Your task to perform on an android device: turn pop-ups off in chrome Image 0: 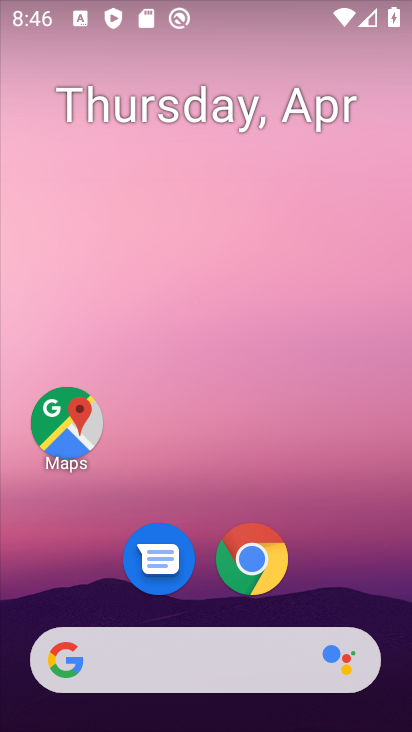
Step 0: click (250, 577)
Your task to perform on an android device: turn pop-ups off in chrome Image 1: 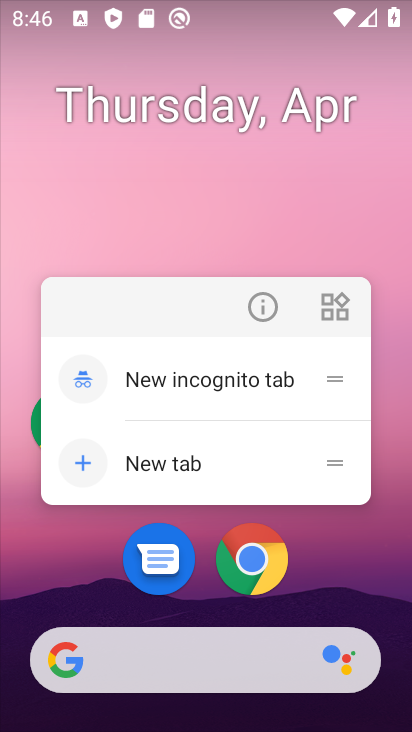
Step 1: click (250, 577)
Your task to perform on an android device: turn pop-ups off in chrome Image 2: 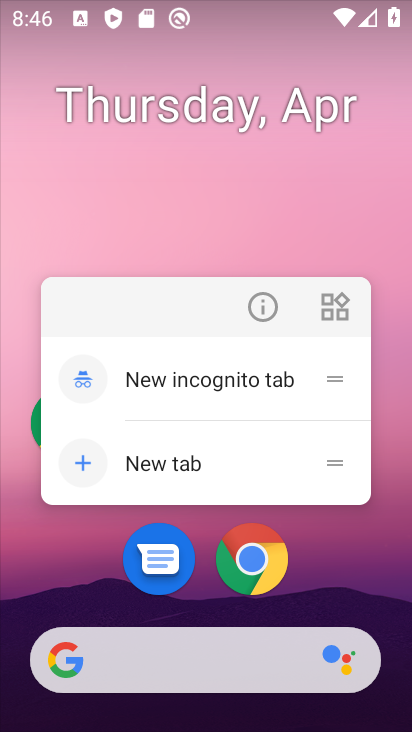
Step 2: click (250, 577)
Your task to perform on an android device: turn pop-ups off in chrome Image 3: 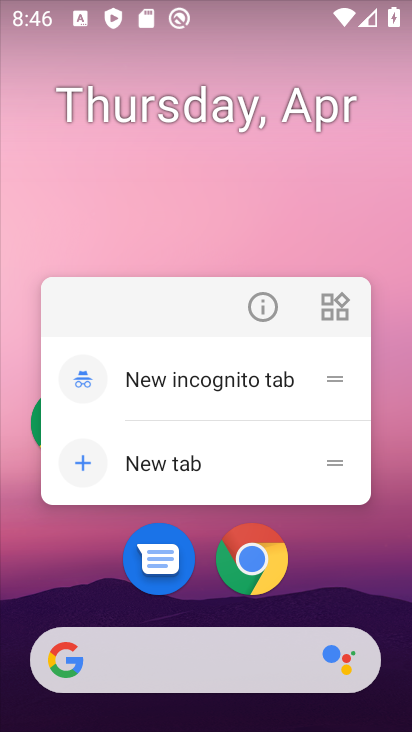
Step 3: click (250, 577)
Your task to perform on an android device: turn pop-ups off in chrome Image 4: 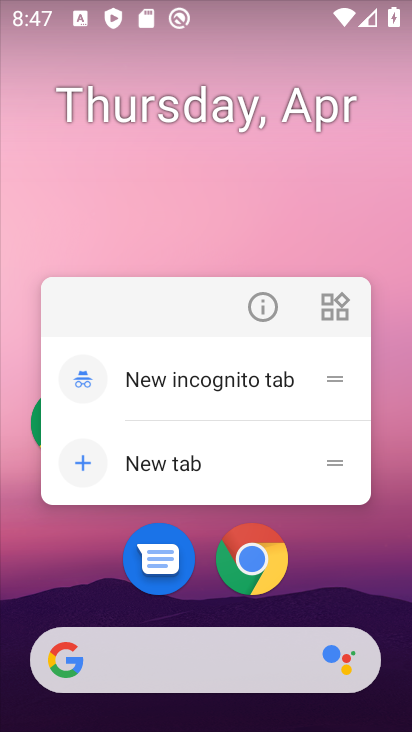
Step 4: click (270, 557)
Your task to perform on an android device: turn pop-ups off in chrome Image 5: 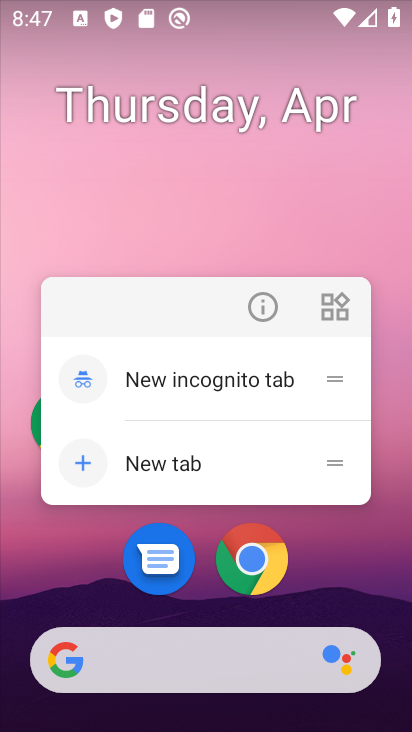
Step 5: click (270, 557)
Your task to perform on an android device: turn pop-ups off in chrome Image 6: 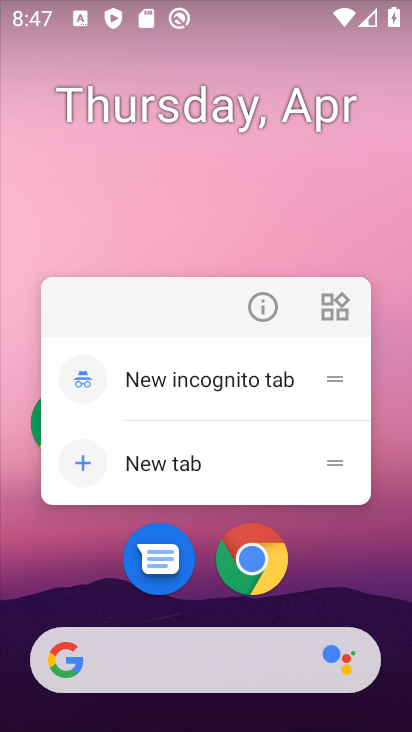
Step 6: click (267, 560)
Your task to perform on an android device: turn pop-ups off in chrome Image 7: 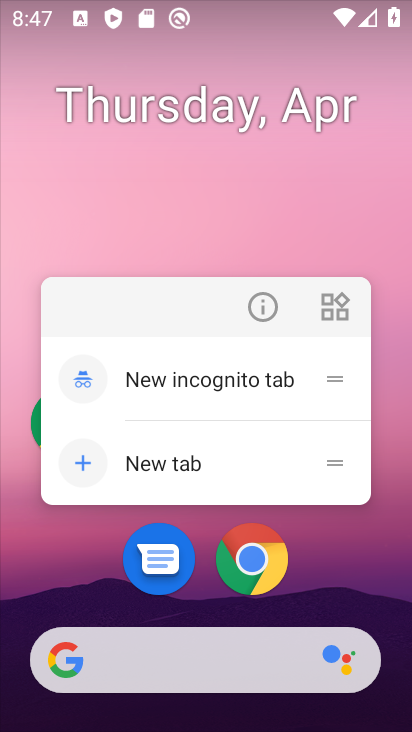
Step 7: click (238, 548)
Your task to perform on an android device: turn pop-ups off in chrome Image 8: 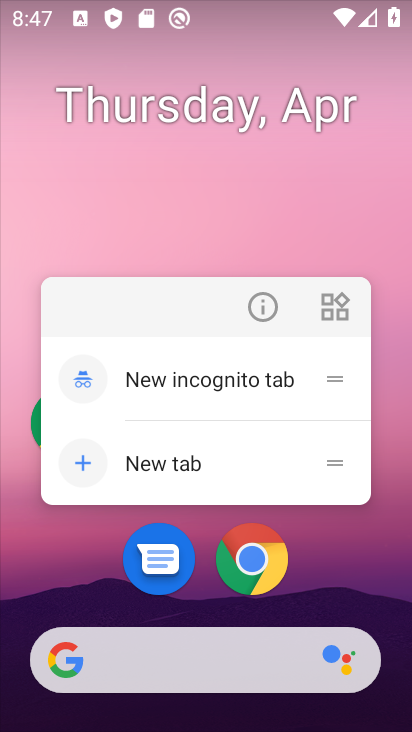
Step 8: click (238, 548)
Your task to perform on an android device: turn pop-ups off in chrome Image 9: 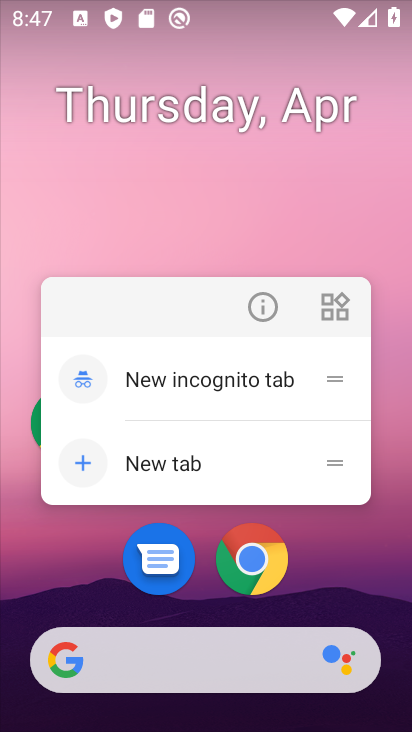
Step 9: click (239, 550)
Your task to perform on an android device: turn pop-ups off in chrome Image 10: 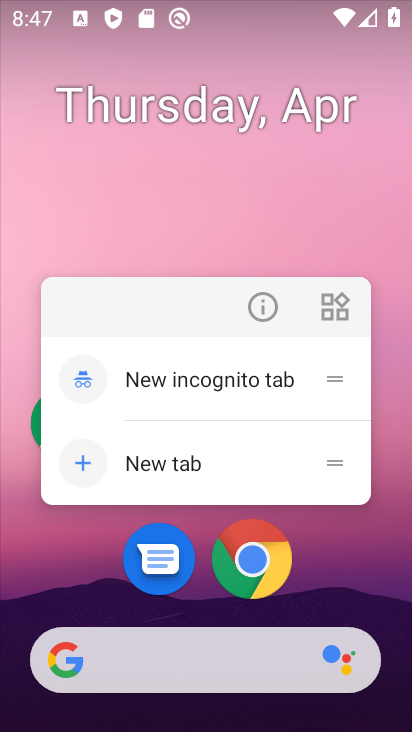
Step 10: click (239, 550)
Your task to perform on an android device: turn pop-ups off in chrome Image 11: 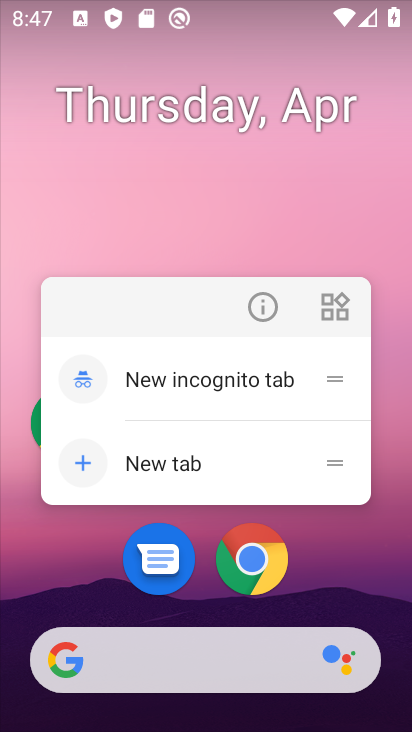
Step 11: click (299, 175)
Your task to perform on an android device: turn pop-ups off in chrome Image 12: 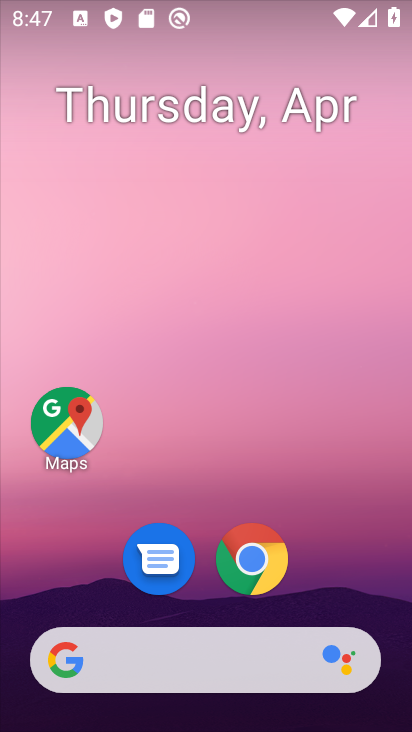
Step 12: click (254, 553)
Your task to perform on an android device: turn pop-ups off in chrome Image 13: 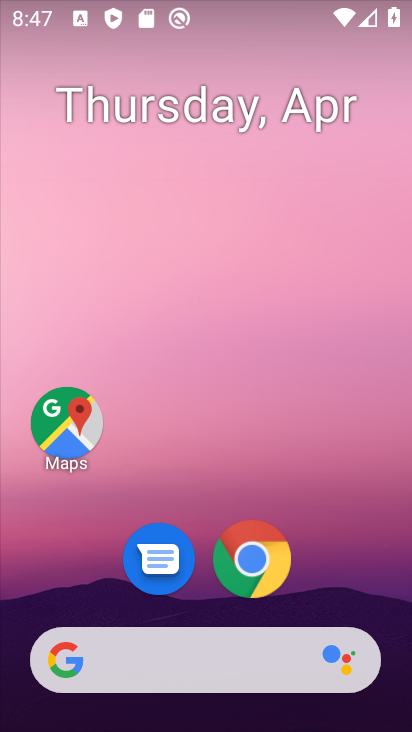
Step 13: click (254, 553)
Your task to perform on an android device: turn pop-ups off in chrome Image 14: 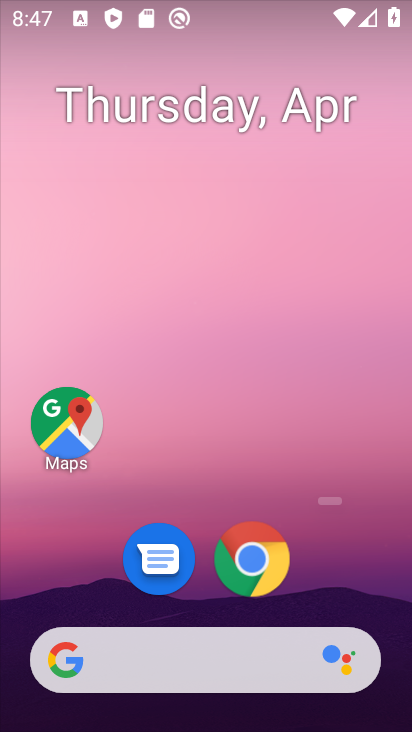
Step 14: click (254, 553)
Your task to perform on an android device: turn pop-ups off in chrome Image 15: 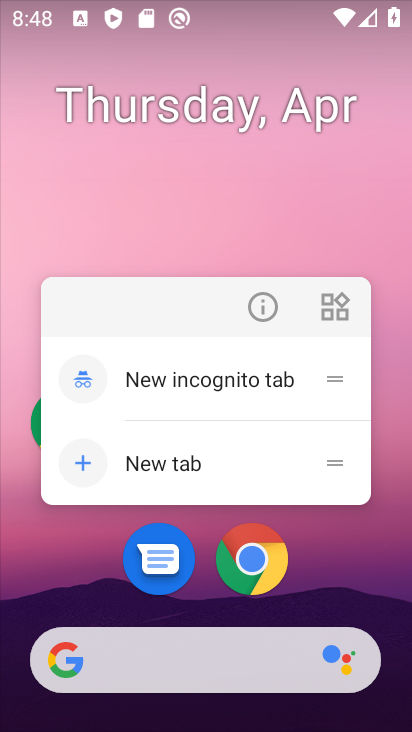
Step 15: click (245, 565)
Your task to perform on an android device: turn pop-ups off in chrome Image 16: 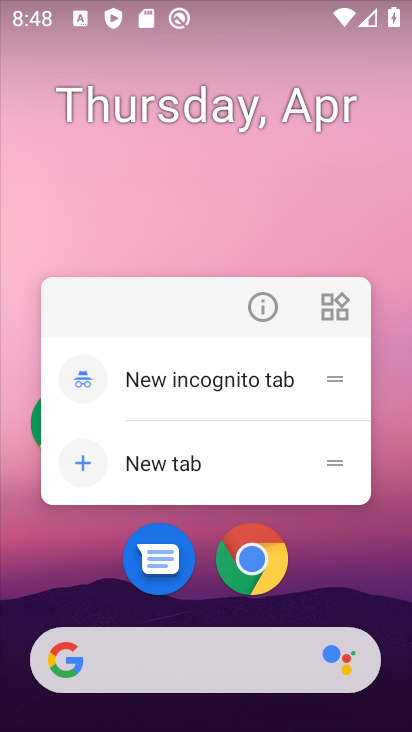
Step 16: click (245, 565)
Your task to perform on an android device: turn pop-ups off in chrome Image 17: 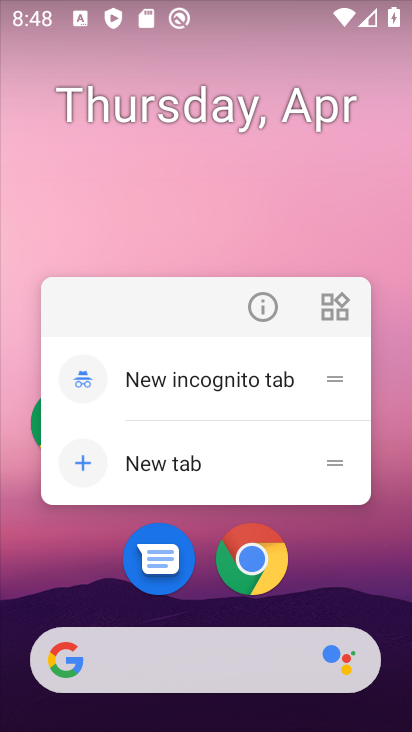
Step 17: click (253, 571)
Your task to perform on an android device: turn pop-ups off in chrome Image 18: 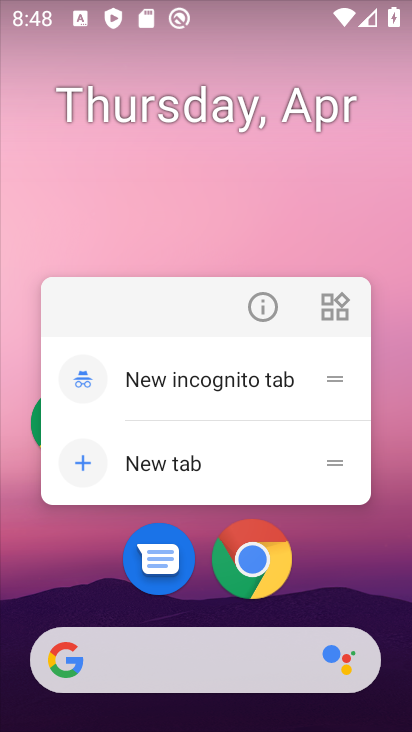
Step 18: click (253, 571)
Your task to perform on an android device: turn pop-ups off in chrome Image 19: 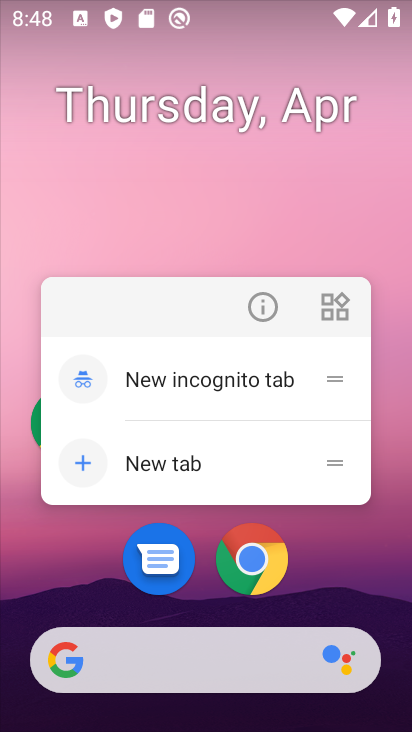
Step 19: click (253, 571)
Your task to perform on an android device: turn pop-ups off in chrome Image 20: 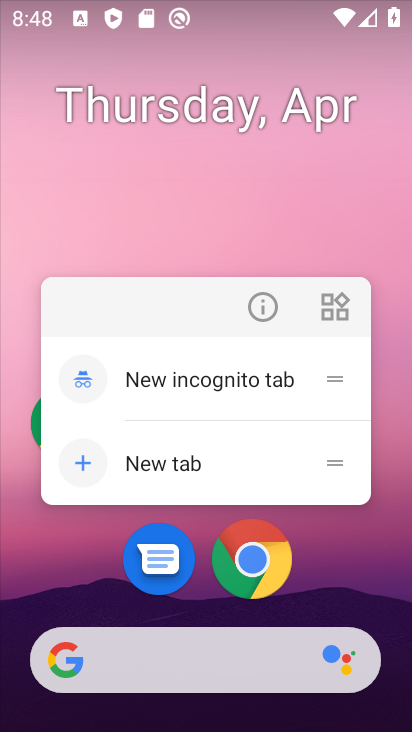
Step 20: click (253, 571)
Your task to perform on an android device: turn pop-ups off in chrome Image 21: 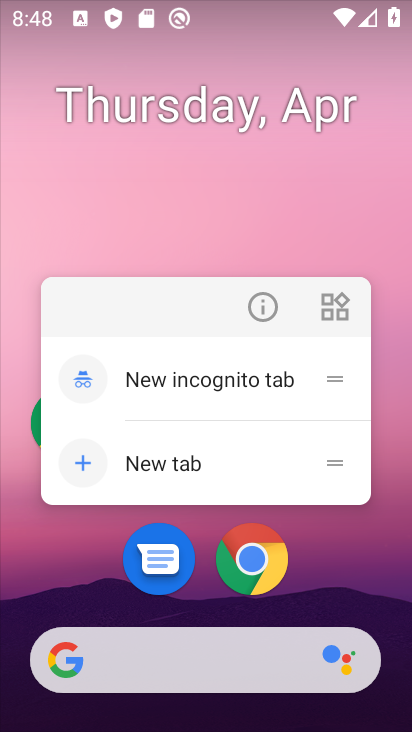
Step 21: click (255, 568)
Your task to perform on an android device: turn pop-ups off in chrome Image 22: 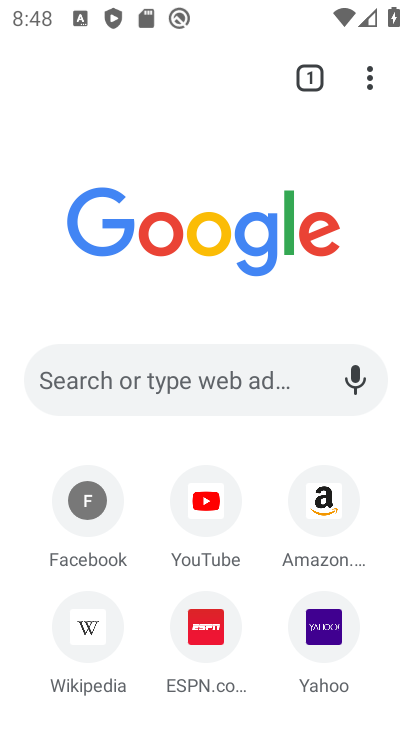
Step 22: click (366, 69)
Your task to perform on an android device: turn pop-ups off in chrome Image 23: 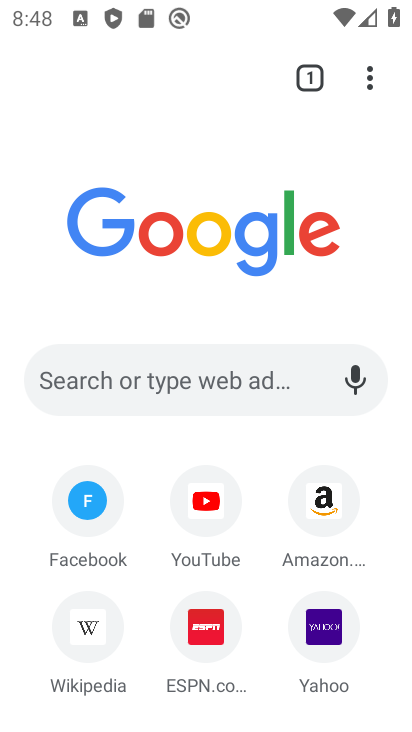
Step 23: click (349, 81)
Your task to perform on an android device: turn pop-ups off in chrome Image 24: 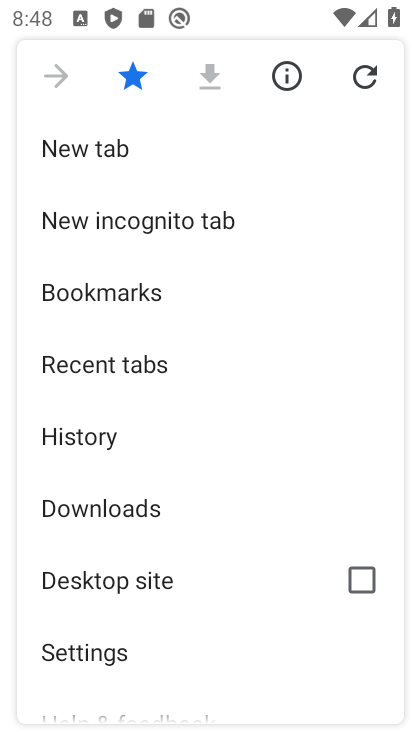
Step 24: click (111, 657)
Your task to perform on an android device: turn pop-ups off in chrome Image 25: 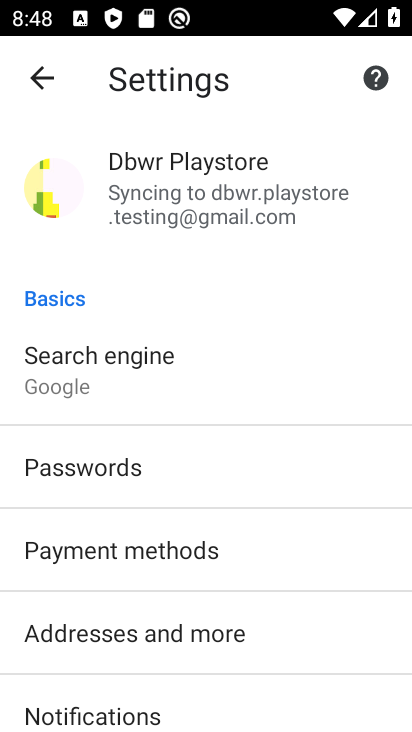
Step 25: drag from (288, 581) to (360, 98)
Your task to perform on an android device: turn pop-ups off in chrome Image 26: 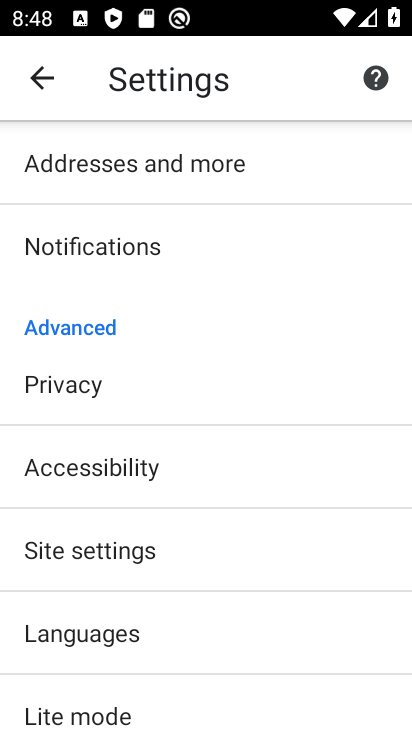
Step 26: click (145, 551)
Your task to perform on an android device: turn pop-ups off in chrome Image 27: 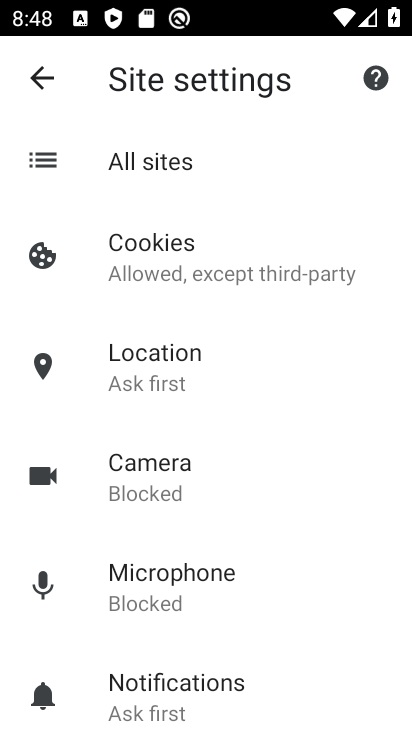
Step 27: drag from (289, 657) to (295, 182)
Your task to perform on an android device: turn pop-ups off in chrome Image 28: 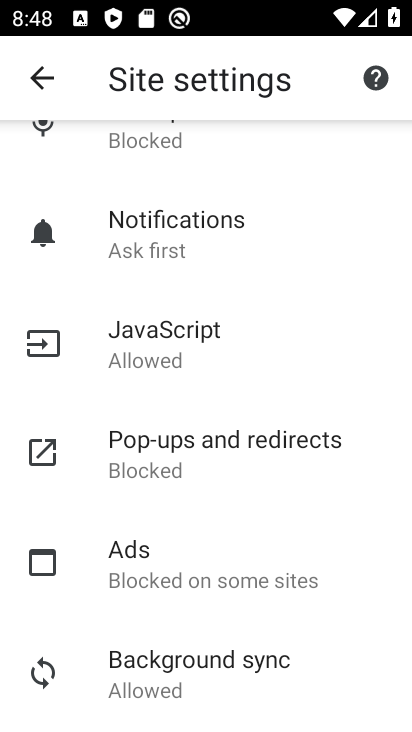
Step 28: click (250, 460)
Your task to perform on an android device: turn pop-ups off in chrome Image 29: 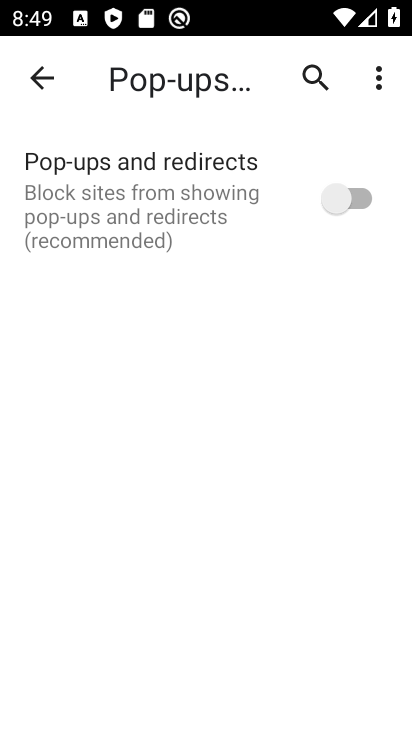
Step 29: task complete